Your task to perform on an android device: What's the weather today? Image 0: 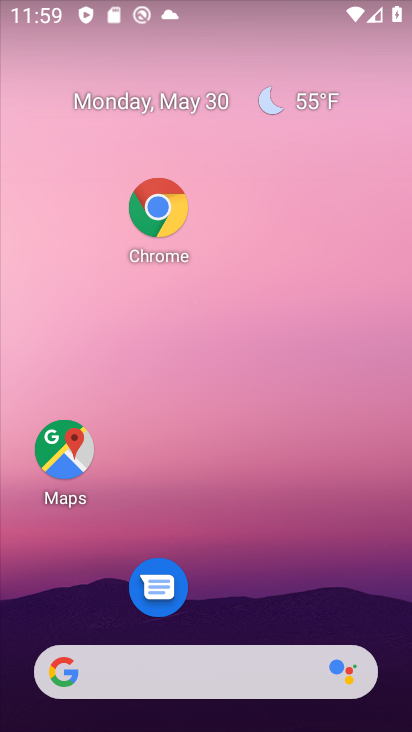
Step 0: click (167, 228)
Your task to perform on an android device: What's the weather today? Image 1: 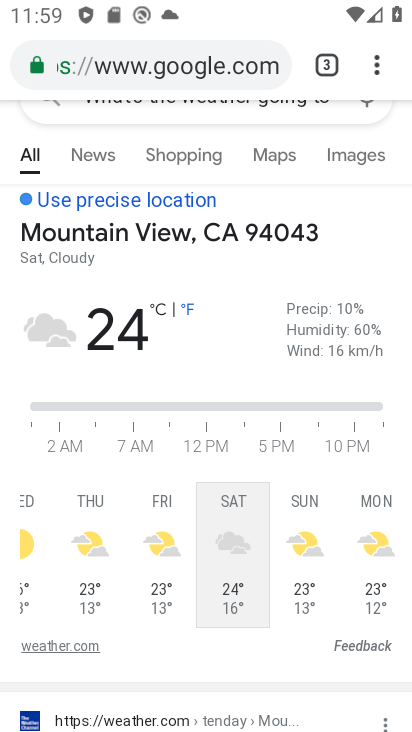
Step 1: click (328, 65)
Your task to perform on an android device: What's the weather today? Image 2: 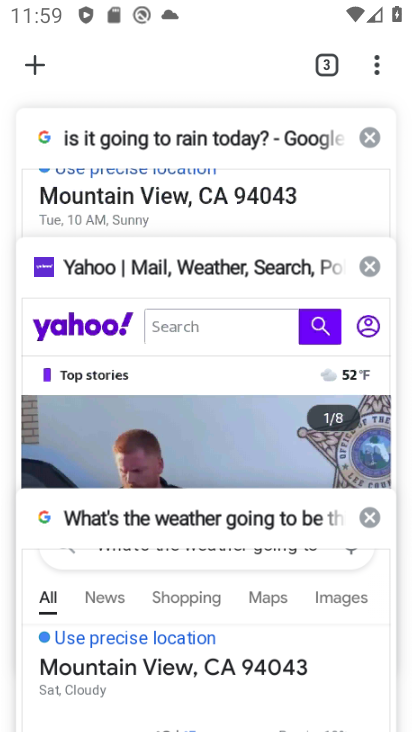
Step 2: click (252, 136)
Your task to perform on an android device: What's the weather today? Image 3: 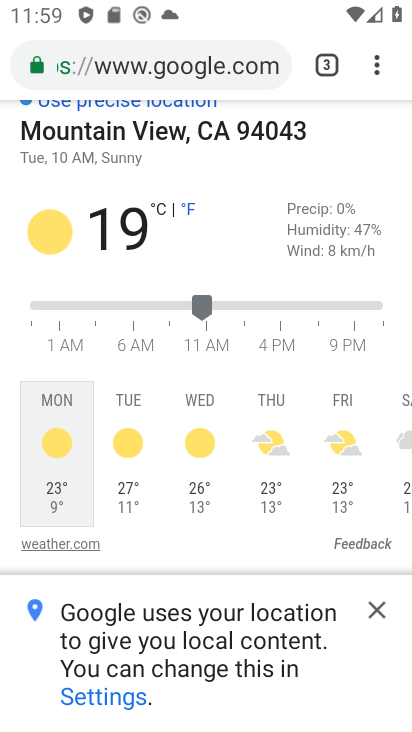
Step 3: drag from (99, 154) to (148, 157)
Your task to perform on an android device: What's the weather today? Image 4: 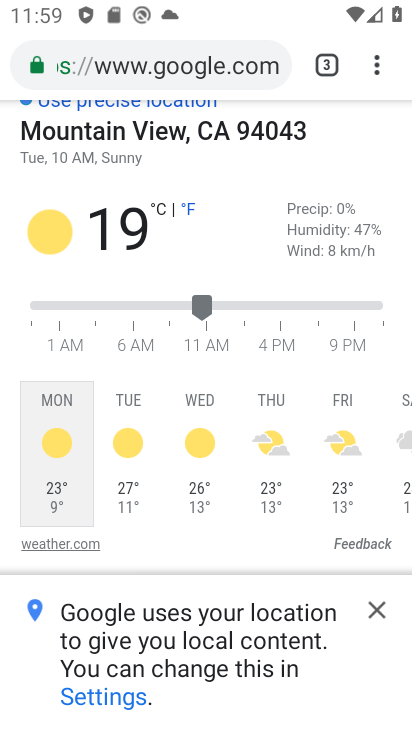
Step 4: click (127, 160)
Your task to perform on an android device: What's the weather today? Image 5: 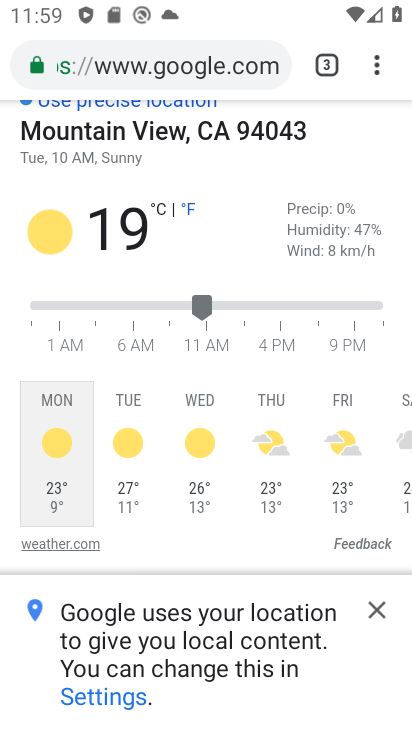
Step 5: click (127, 160)
Your task to perform on an android device: What's the weather today? Image 6: 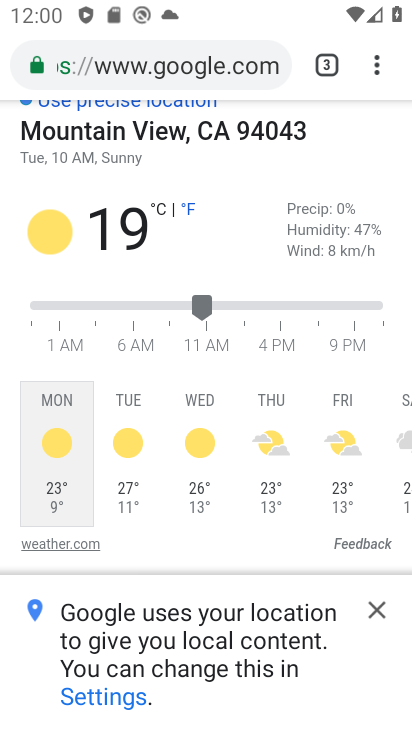
Step 6: task complete